Your task to perform on an android device: turn off data saver in the chrome app Image 0: 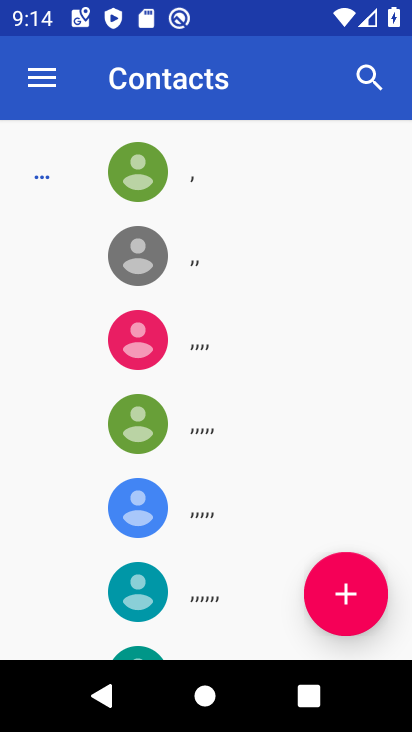
Step 0: press home button
Your task to perform on an android device: turn off data saver in the chrome app Image 1: 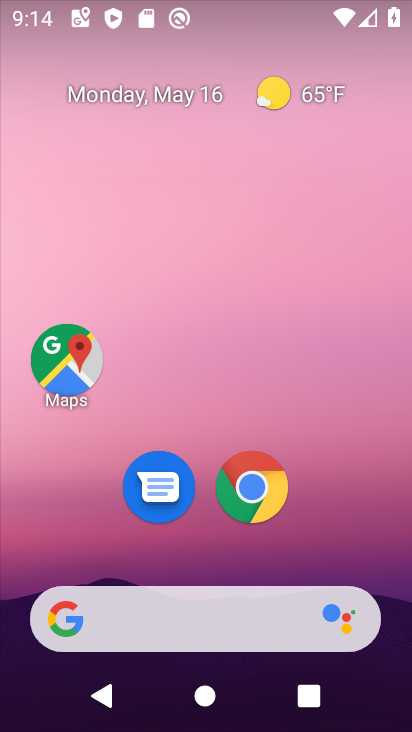
Step 1: drag from (383, 568) to (368, 118)
Your task to perform on an android device: turn off data saver in the chrome app Image 2: 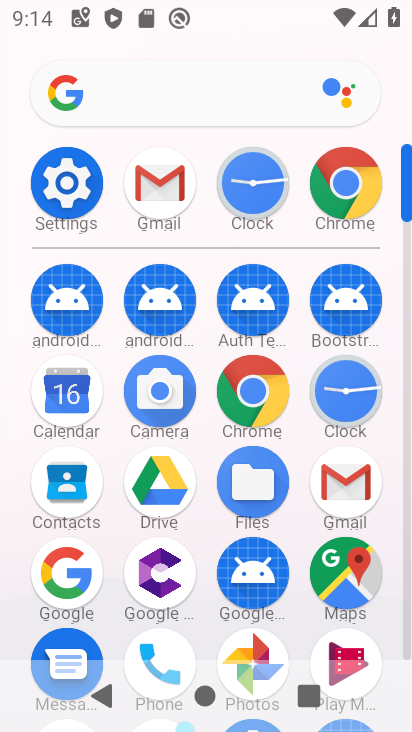
Step 2: click (251, 413)
Your task to perform on an android device: turn off data saver in the chrome app Image 3: 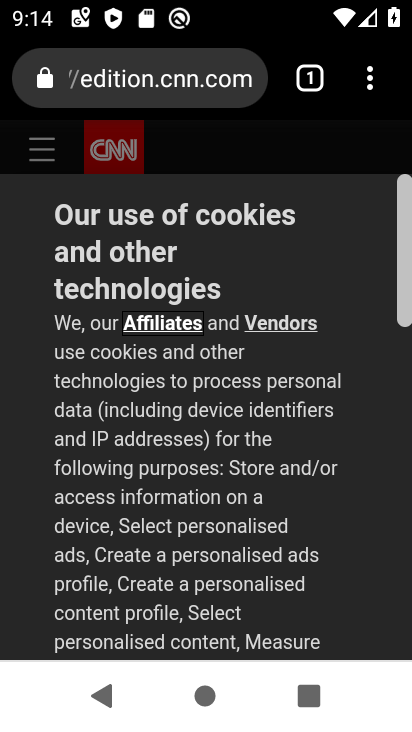
Step 3: click (371, 86)
Your task to perform on an android device: turn off data saver in the chrome app Image 4: 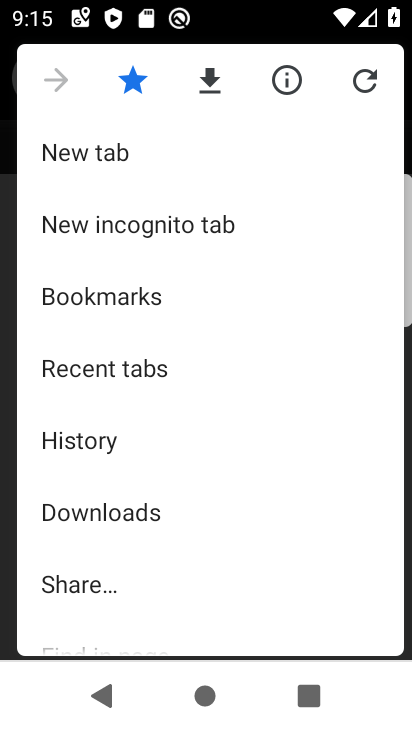
Step 4: drag from (309, 562) to (331, 320)
Your task to perform on an android device: turn off data saver in the chrome app Image 5: 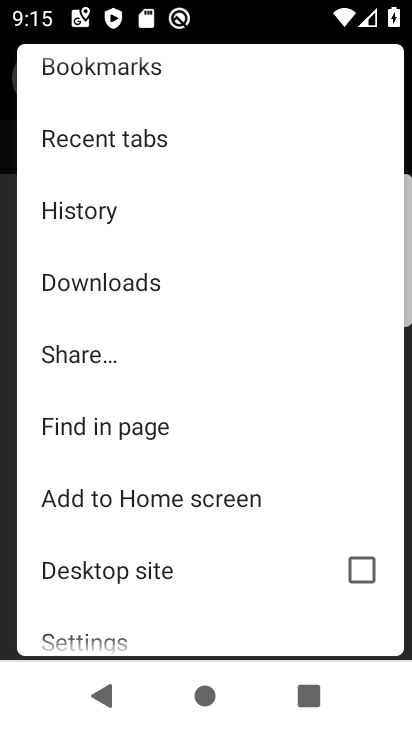
Step 5: drag from (268, 555) to (302, 319)
Your task to perform on an android device: turn off data saver in the chrome app Image 6: 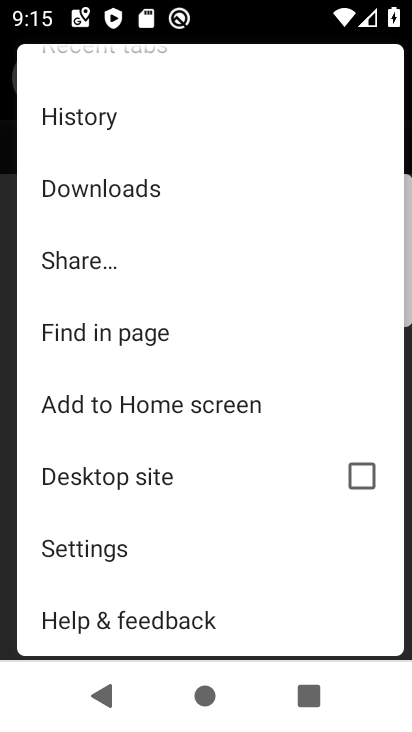
Step 6: click (106, 555)
Your task to perform on an android device: turn off data saver in the chrome app Image 7: 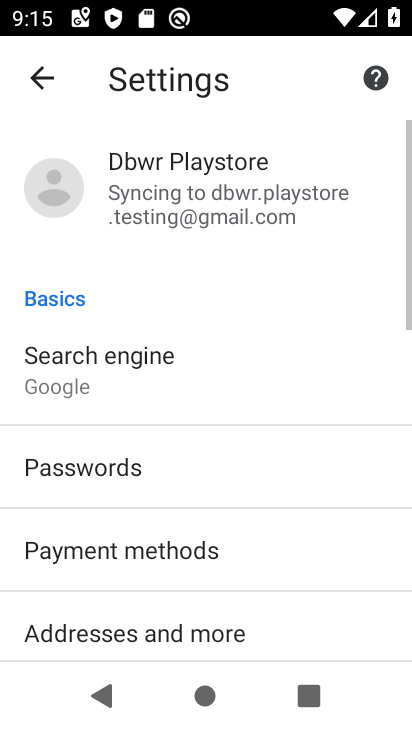
Step 7: drag from (280, 568) to (297, 453)
Your task to perform on an android device: turn off data saver in the chrome app Image 8: 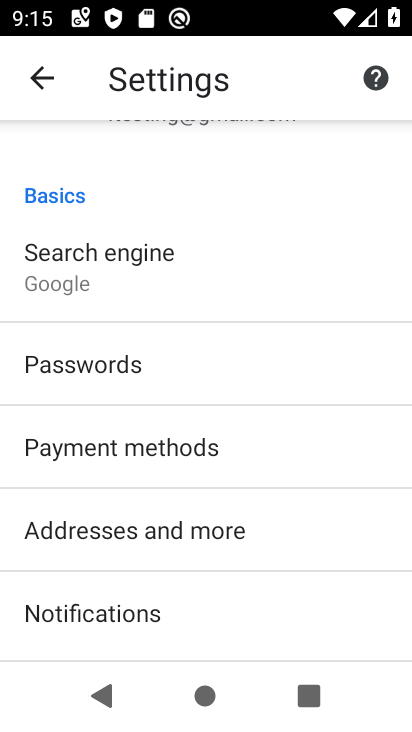
Step 8: drag from (310, 572) to (318, 452)
Your task to perform on an android device: turn off data saver in the chrome app Image 9: 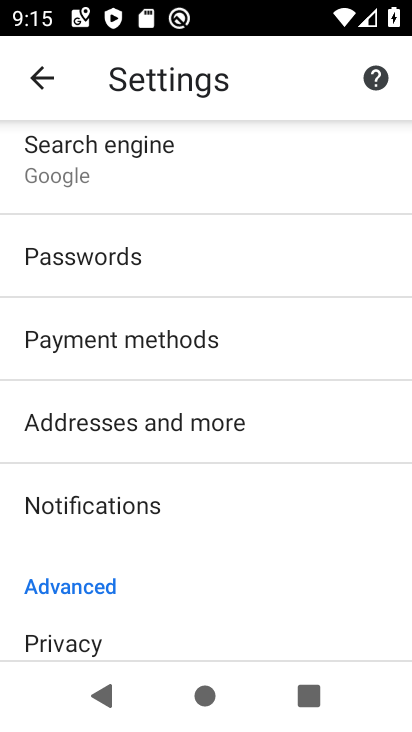
Step 9: drag from (303, 601) to (317, 501)
Your task to perform on an android device: turn off data saver in the chrome app Image 10: 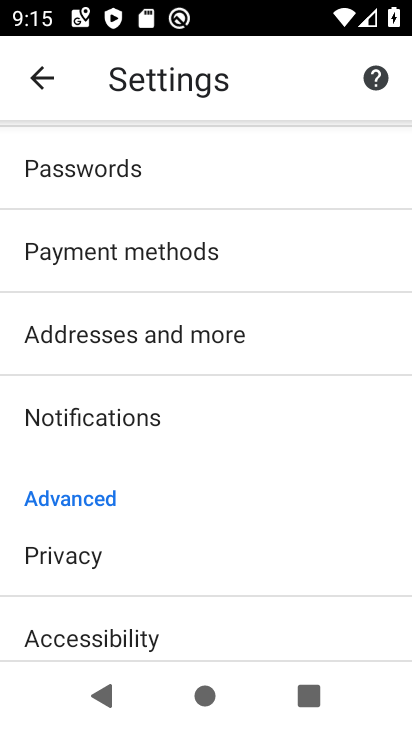
Step 10: drag from (310, 573) to (312, 491)
Your task to perform on an android device: turn off data saver in the chrome app Image 11: 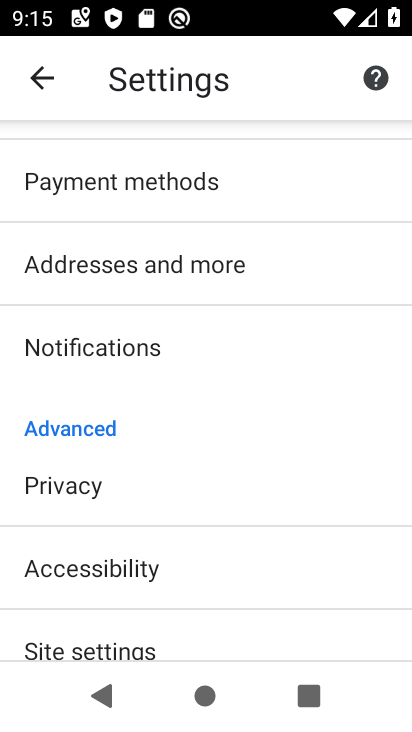
Step 11: drag from (289, 599) to (303, 500)
Your task to perform on an android device: turn off data saver in the chrome app Image 12: 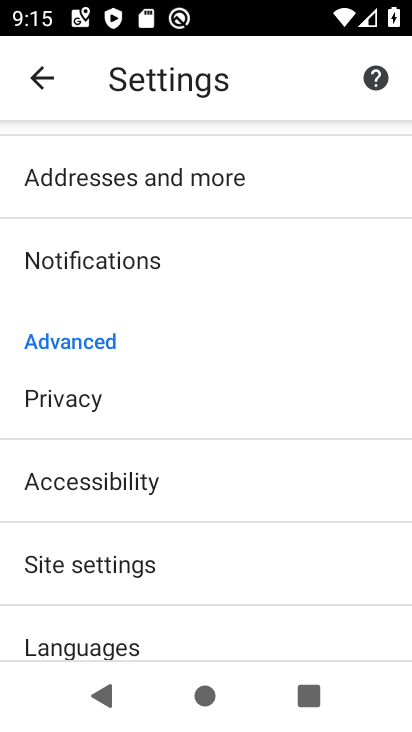
Step 12: drag from (282, 605) to (288, 454)
Your task to perform on an android device: turn off data saver in the chrome app Image 13: 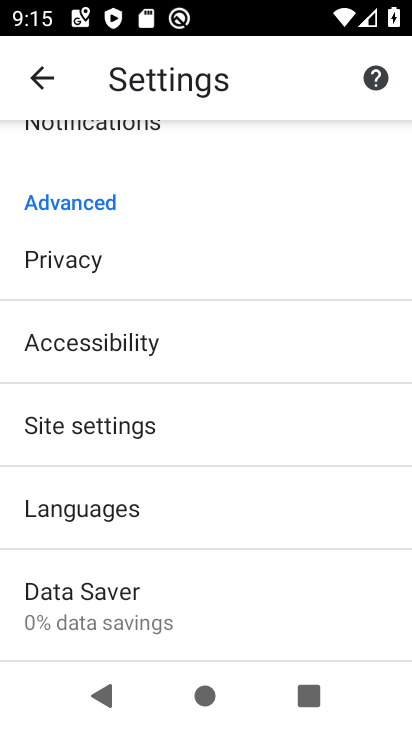
Step 13: drag from (263, 605) to (283, 482)
Your task to perform on an android device: turn off data saver in the chrome app Image 14: 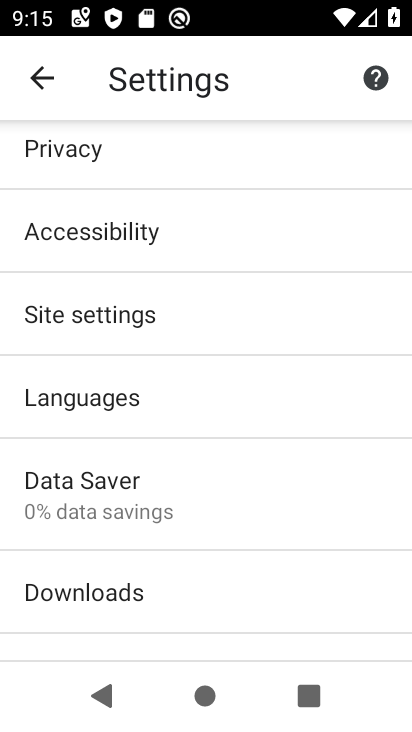
Step 14: click (156, 498)
Your task to perform on an android device: turn off data saver in the chrome app Image 15: 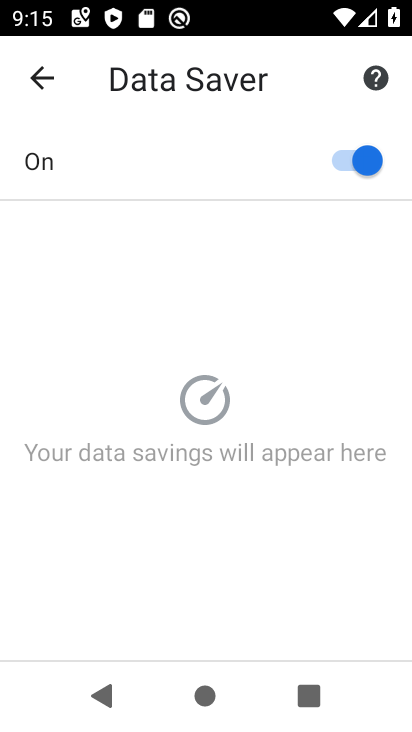
Step 15: click (349, 160)
Your task to perform on an android device: turn off data saver in the chrome app Image 16: 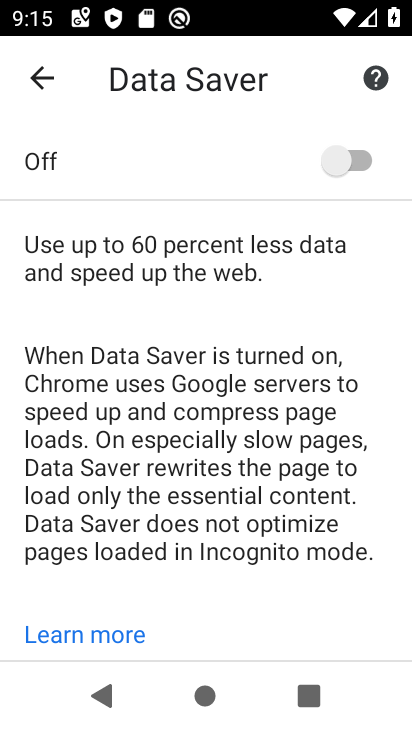
Step 16: task complete